Your task to perform on an android device: What's on my calendar today? Image 0: 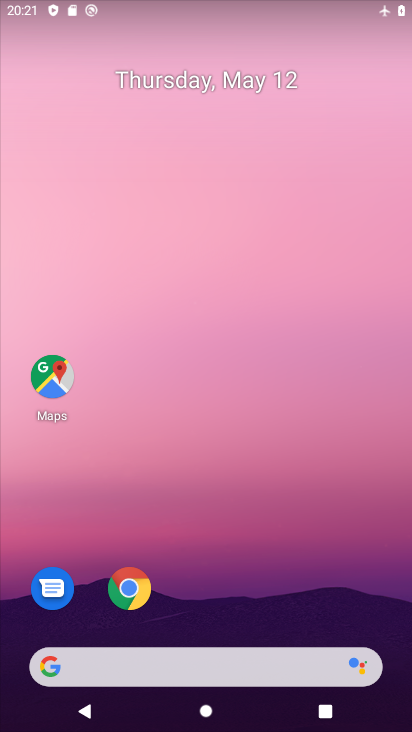
Step 0: drag from (144, 645) to (276, 134)
Your task to perform on an android device: What's on my calendar today? Image 1: 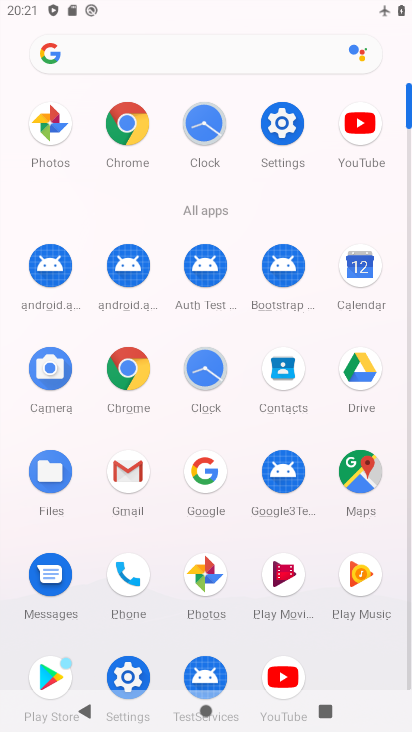
Step 1: click (397, 255)
Your task to perform on an android device: What's on my calendar today? Image 2: 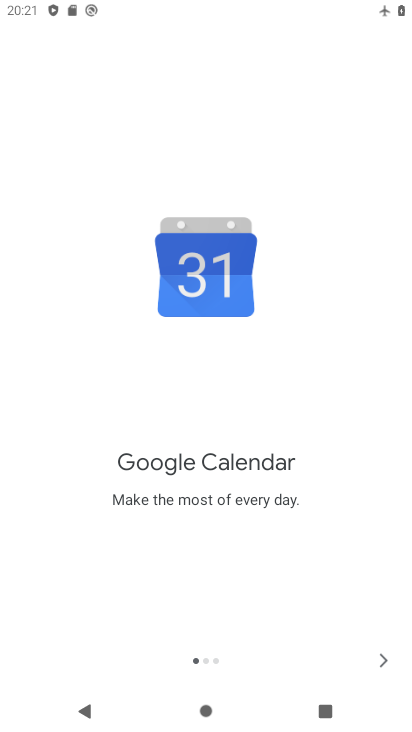
Step 2: click (393, 666)
Your task to perform on an android device: What's on my calendar today? Image 3: 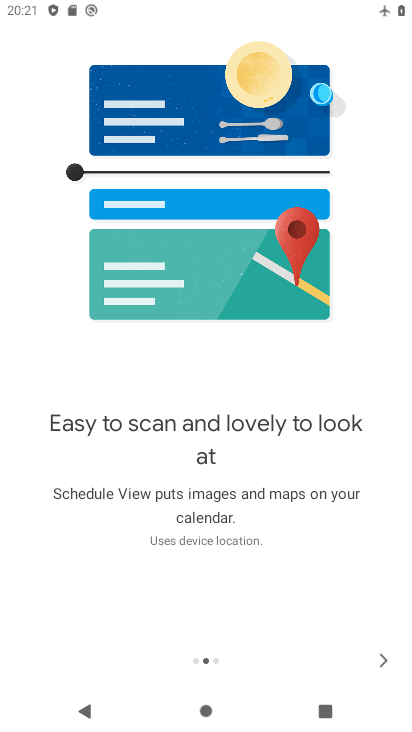
Step 3: click (393, 666)
Your task to perform on an android device: What's on my calendar today? Image 4: 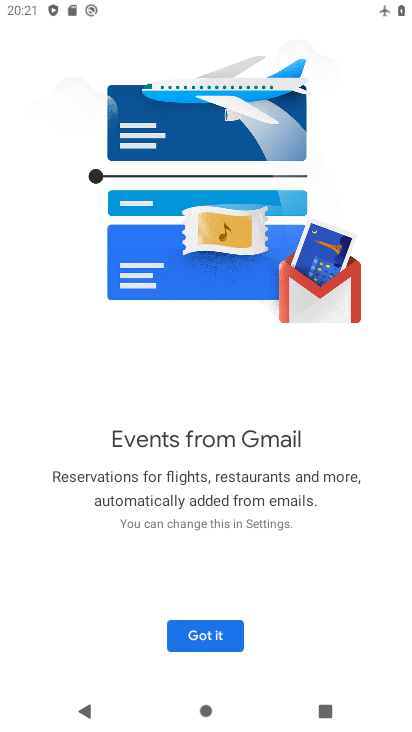
Step 4: click (227, 627)
Your task to perform on an android device: What's on my calendar today? Image 5: 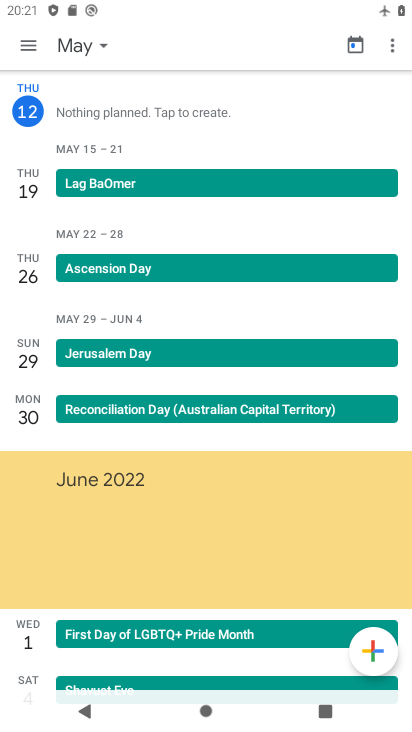
Step 5: click (29, 117)
Your task to perform on an android device: What's on my calendar today? Image 6: 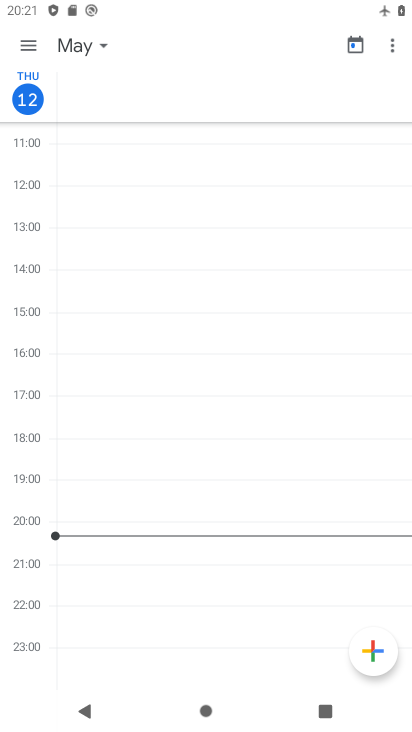
Step 6: task complete